Your task to perform on an android device: turn off wifi Image 0: 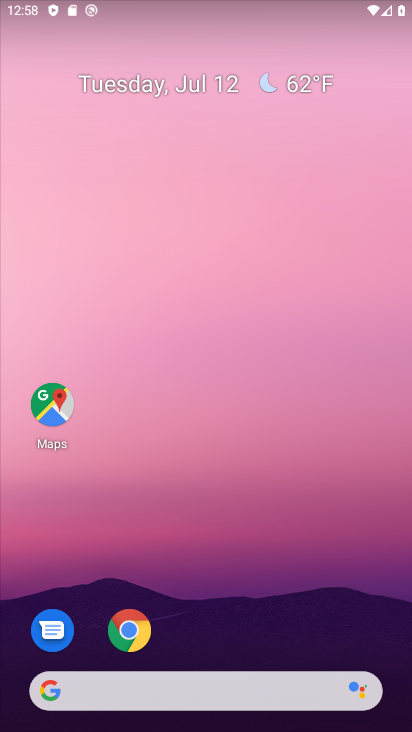
Step 0: drag from (268, 623) to (319, 113)
Your task to perform on an android device: turn off wifi Image 1: 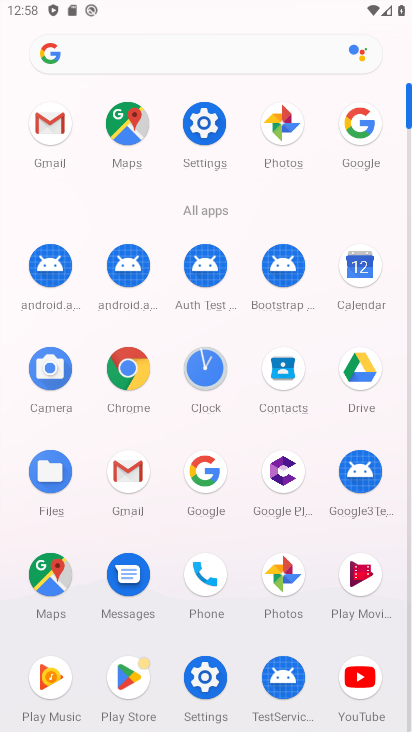
Step 1: click (204, 131)
Your task to perform on an android device: turn off wifi Image 2: 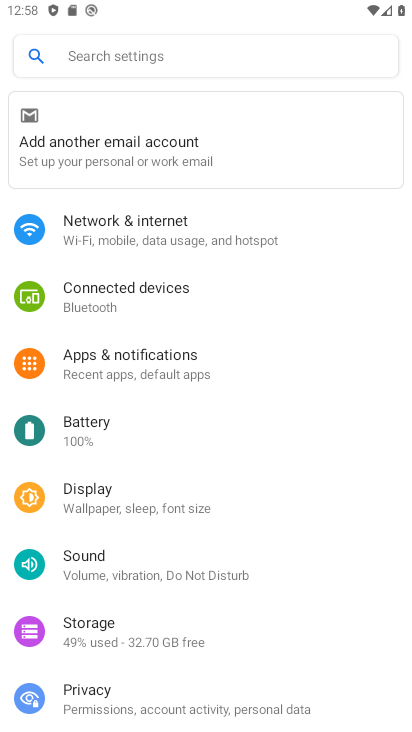
Step 2: click (131, 232)
Your task to perform on an android device: turn off wifi Image 3: 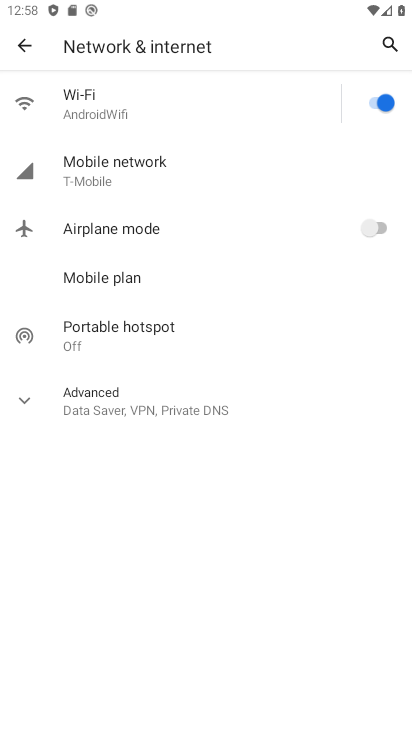
Step 3: click (382, 104)
Your task to perform on an android device: turn off wifi Image 4: 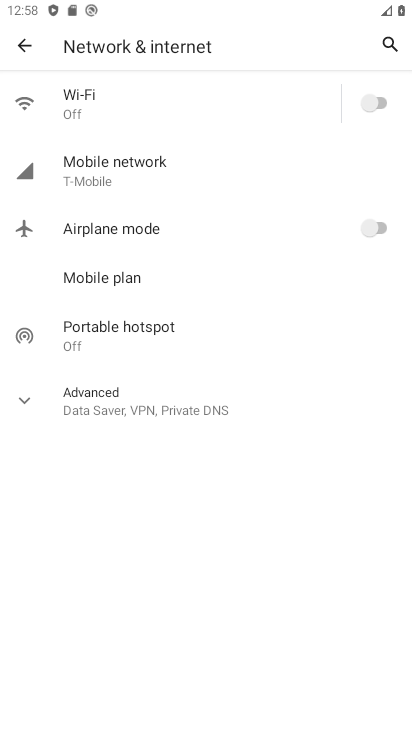
Step 4: task complete